Your task to perform on an android device: check the backup settings in the google photos Image 0: 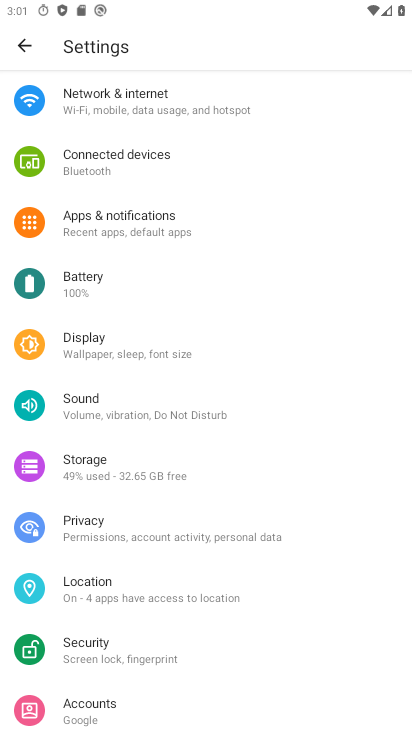
Step 0: click (198, 260)
Your task to perform on an android device: check the backup settings in the google photos Image 1: 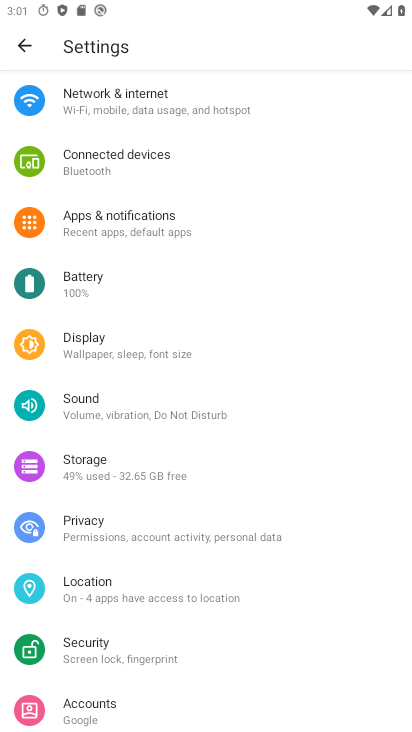
Step 1: press back button
Your task to perform on an android device: check the backup settings in the google photos Image 2: 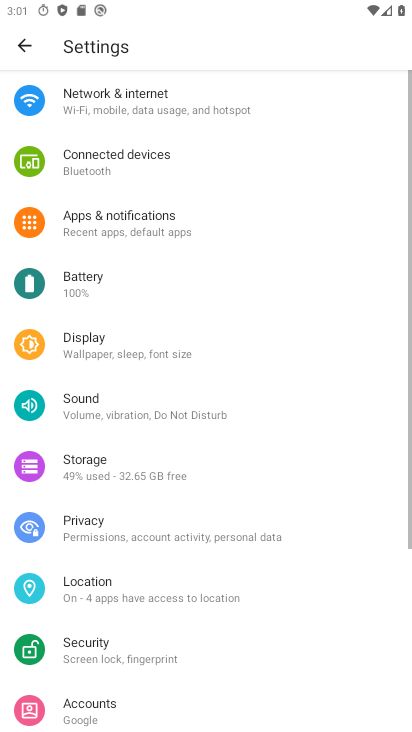
Step 2: press back button
Your task to perform on an android device: check the backup settings in the google photos Image 3: 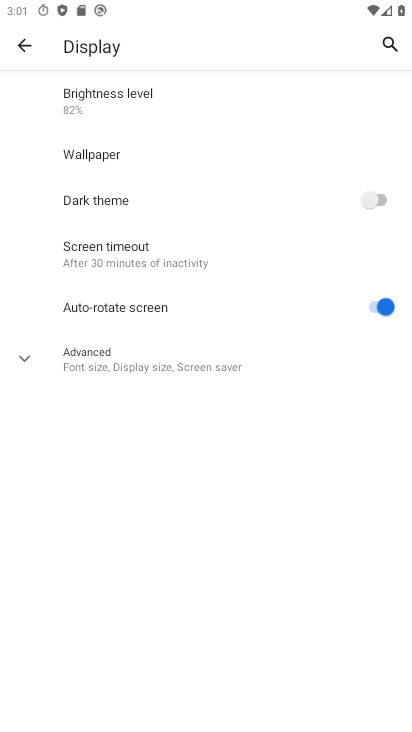
Step 3: click (21, 45)
Your task to perform on an android device: check the backup settings in the google photos Image 4: 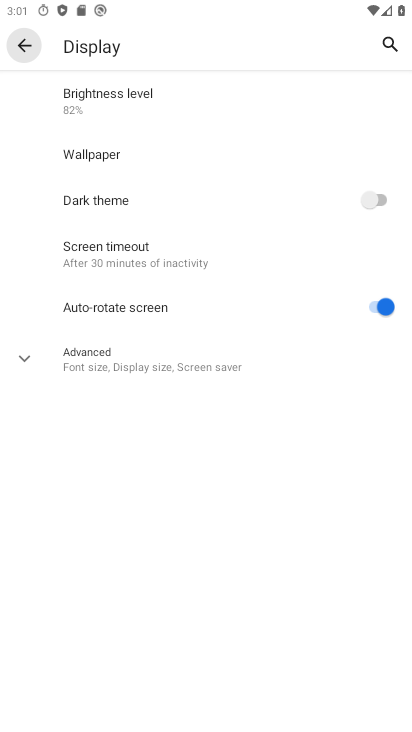
Step 4: click (46, 34)
Your task to perform on an android device: check the backup settings in the google photos Image 5: 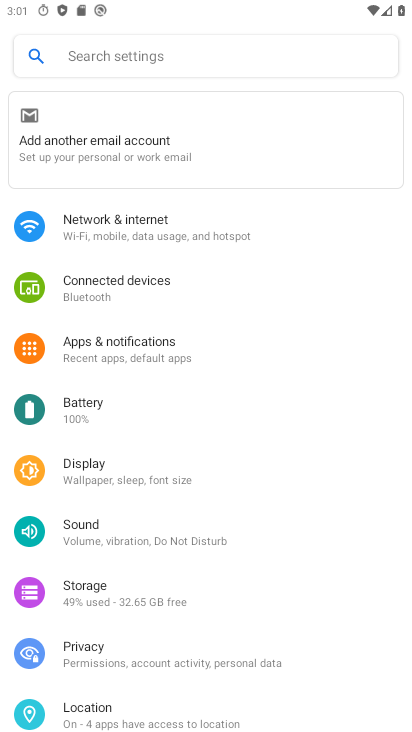
Step 5: press home button
Your task to perform on an android device: check the backup settings in the google photos Image 6: 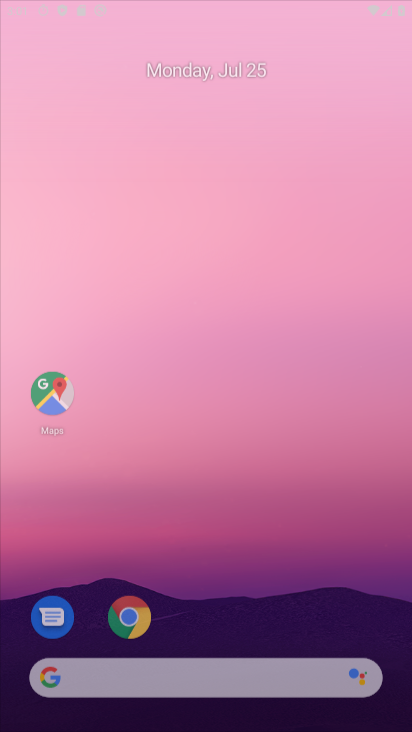
Step 6: press home button
Your task to perform on an android device: check the backup settings in the google photos Image 7: 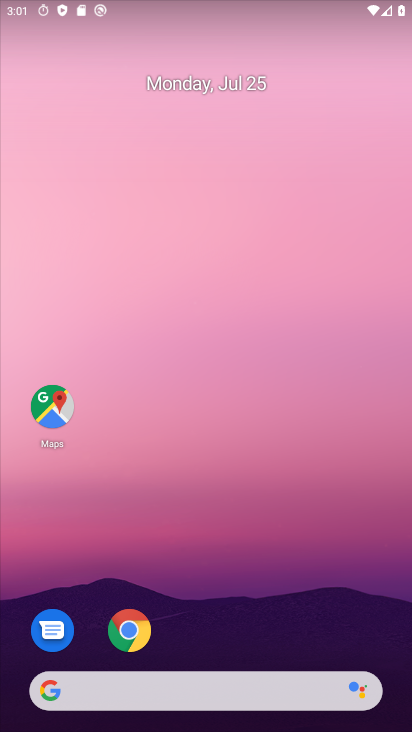
Step 7: drag from (189, 499) to (199, 161)
Your task to perform on an android device: check the backup settings in the google photos Image 8: 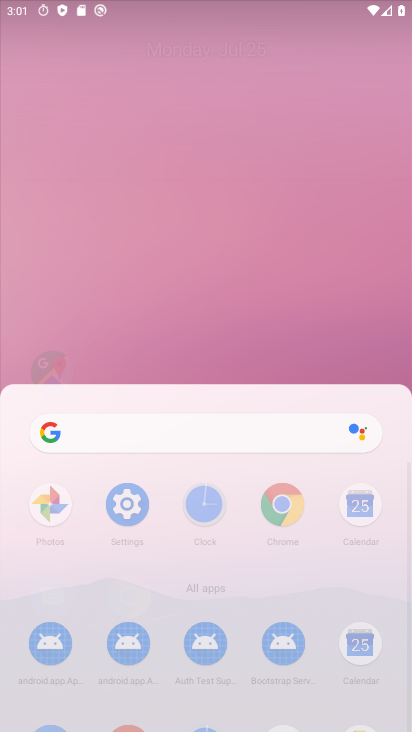
Step 8: drag from (226, 626) to (189, 248)
Your task to perform on an android device: check the backup settings in the google photos Image 9: 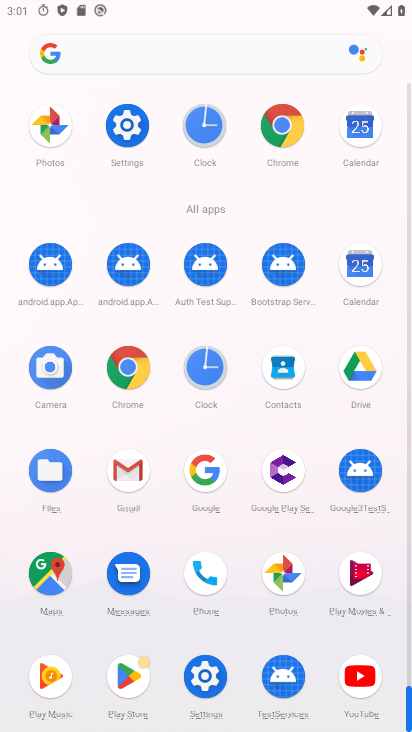
Step 9: click (278, 555)
Your task to perform on an android device: check the backup settings in the google photos Image 10: 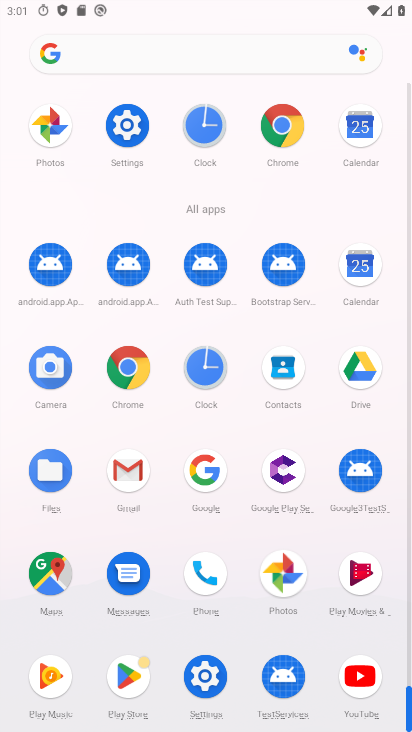
Step 10: click (282, 556)
Your task to perform on an android device: check the backup settings in the google photos Image 11: 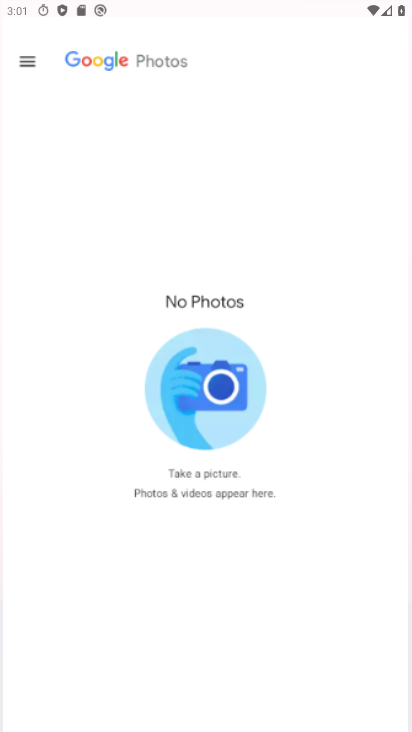
Step 11: click (282, 556)
Your task to perform on an android device: check the backup settings in the google photos Image 12: 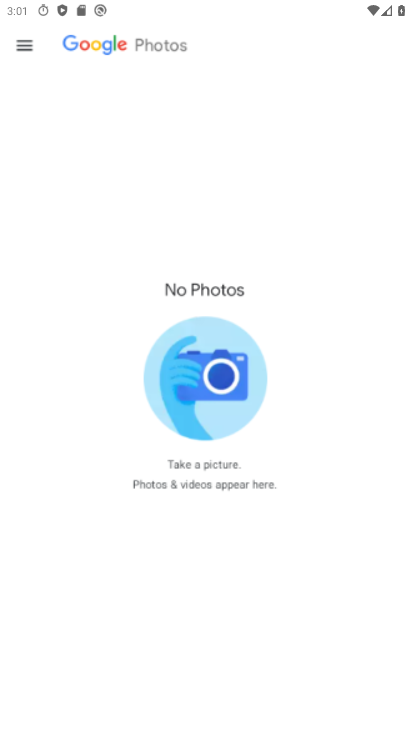
Step 12: click (281, 557)
Your task to perform on an android device: check the backup settings in the google photos Image 13: 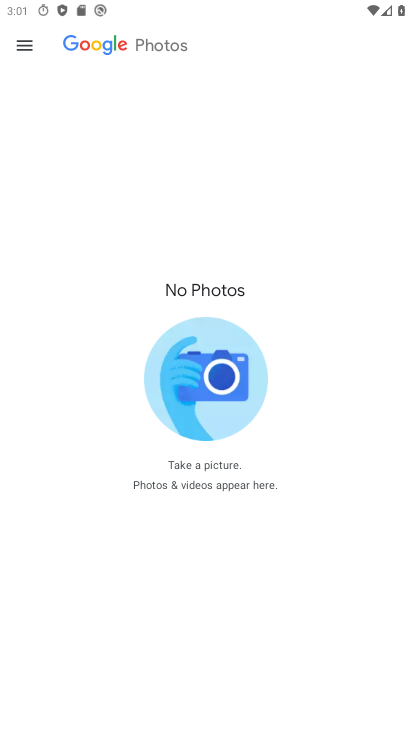
Step 13: click (26, 42)
Your task to perform on an android device: check the backup settings in the google photos Image 14: 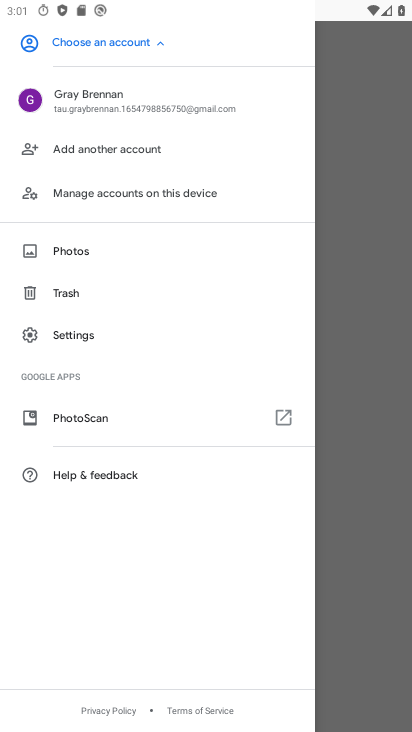
Step 14: click (19, 39)
Your task to perform on an android device: check the backup settings in the google photos Image 15: 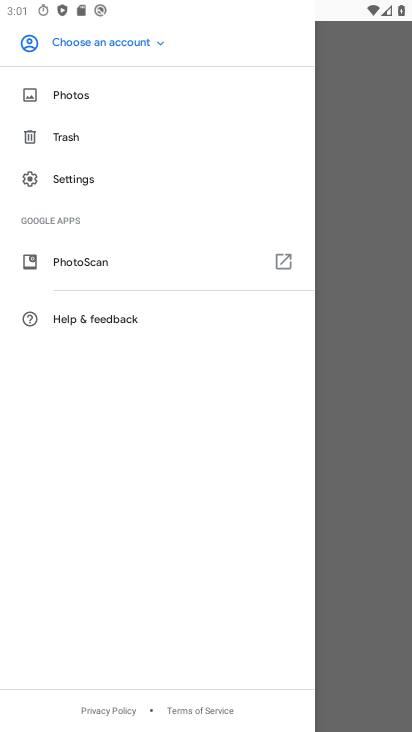
Step 15: click (73, 175)
Your task to perform on an android device: check the backup settings in the google photos Image 16: 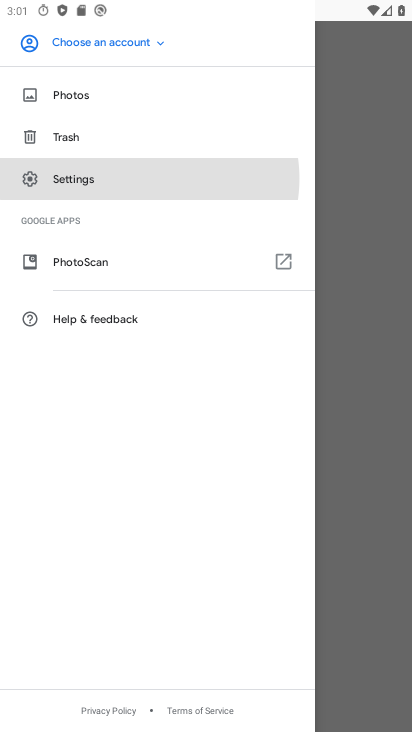
Step 16: click (75, 174)
Your task to perform on an android device: check the backup settings in the google photos Image 17: 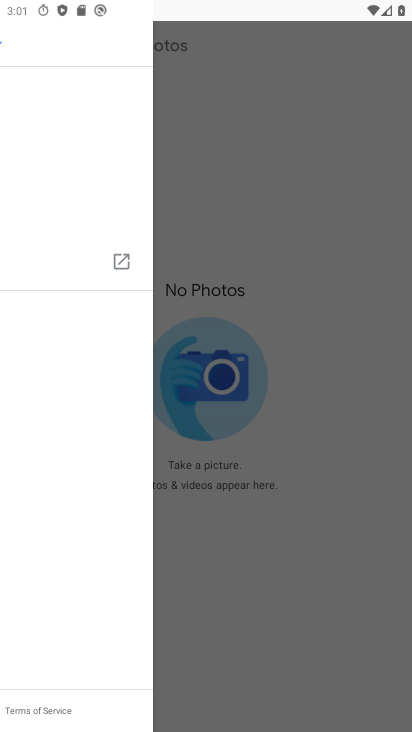
Step 17: click (75, 174)
Your task to perform on an android device: check the backup settings in the google photos Image 18: 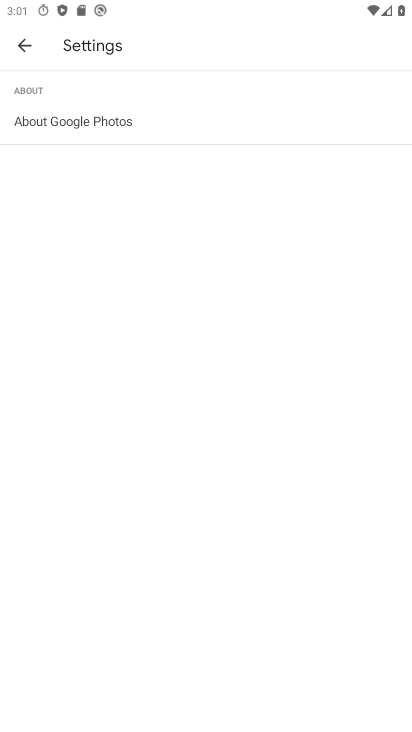
Step 18: click (133, 132)
Your task to perform on an android device: check the backup settings in the google photos Image 19: 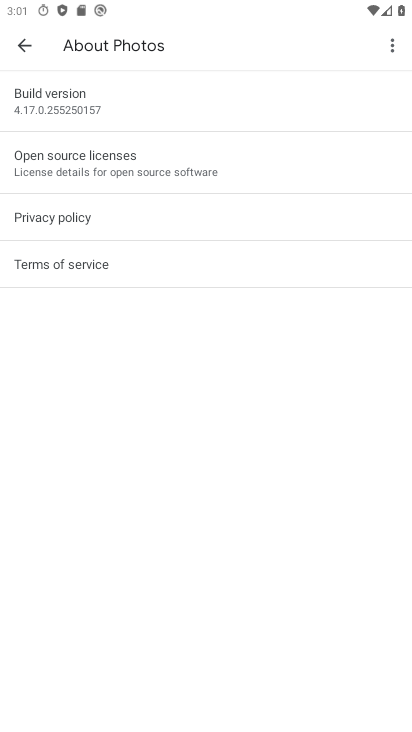
Step 19: click (23, 40)
Your task to perform on an android device: check the backup settings in the google photos Image 20: 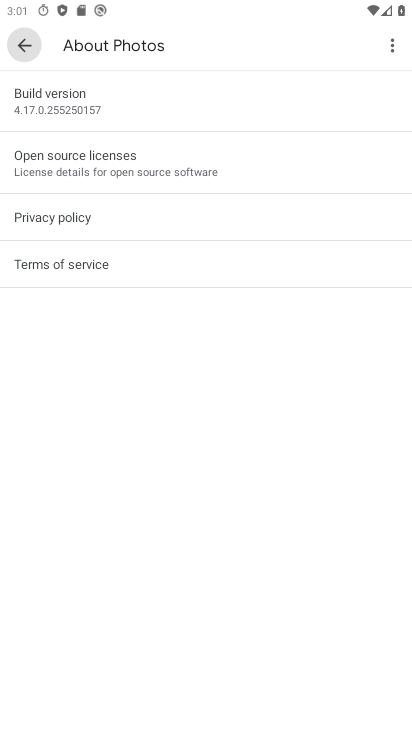
Step 20: click (25, 41)
Your task to perform on an android device: check the backup settings in the google photos Image 21: 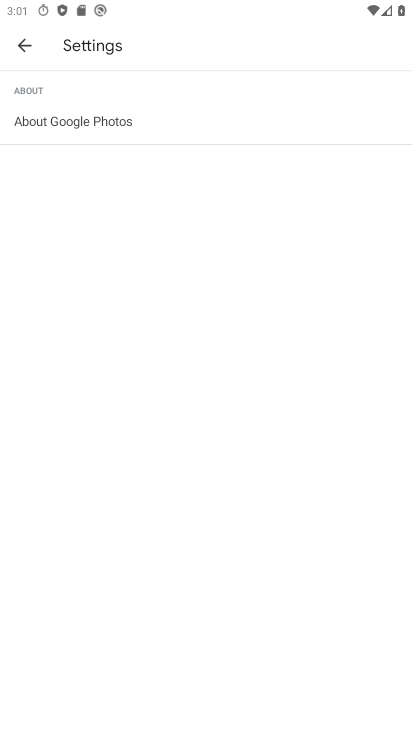
Step 21: click (16, 47)
Your task to perform on an android device: check the backup settings in the google photos Image 22: 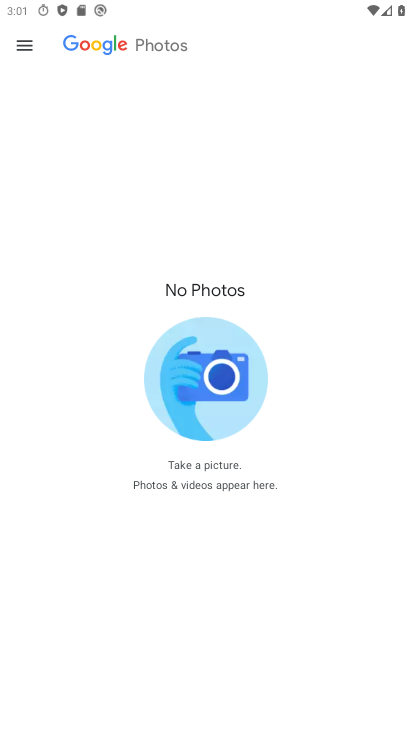
Step 22: task complete